Your task to perform on an android device: toggle data saver in the chrome app Image 0: 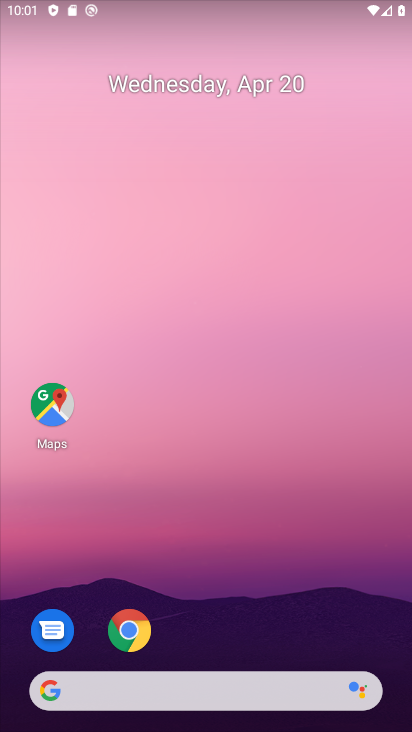
Step 0: drag from (304, 550) to (362, 51)
Your task to perform on an android device: toggle data saver in the chrome app Image 1: 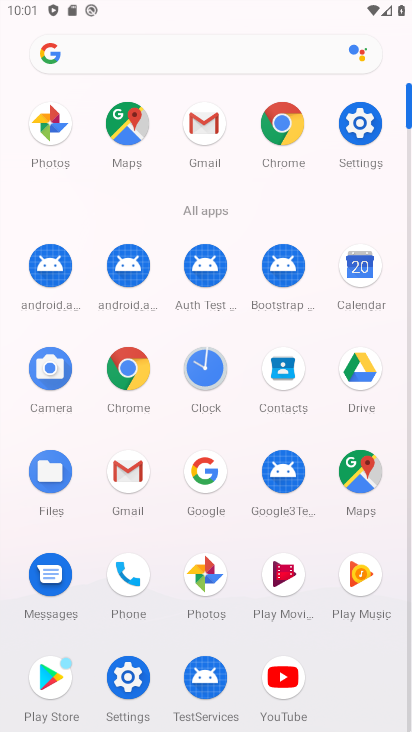
Step 1: click (294, 119)
Your task to perform on an android device: toggle data saver in the chrome app Image 2: 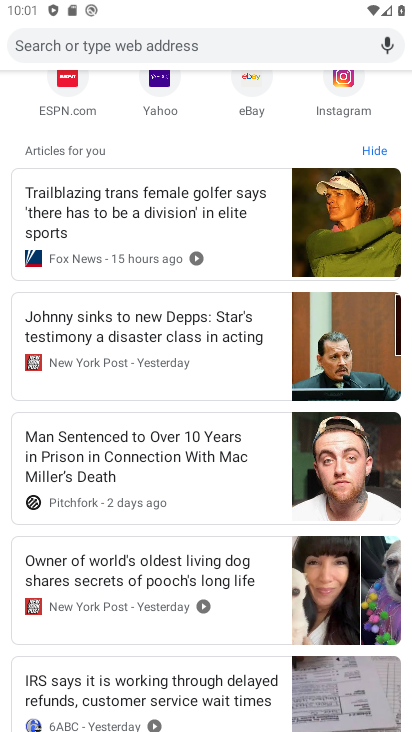
Step 2: drag from (140, 190) to (135, 575)
Your task to perform on an android device: toggle data saver in the chrome app Image 3: 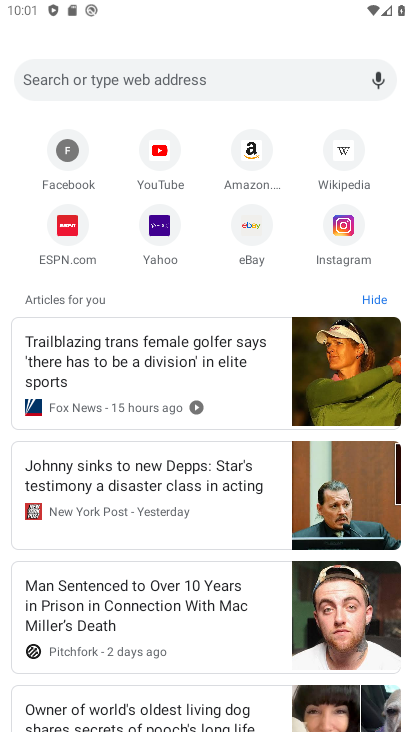
Step 3: drag from (204, 506) to (230, 681)
Your task to perform on an android device: toggle data saver in the chrome app Image 4: 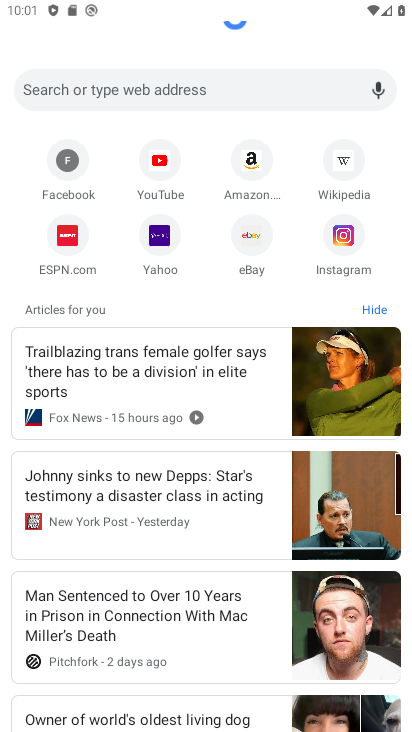
Step 4: drag from (210, 239) to (199, 545)
Your task to perform on an android device: toggle data saver in the chrome app Image 5: 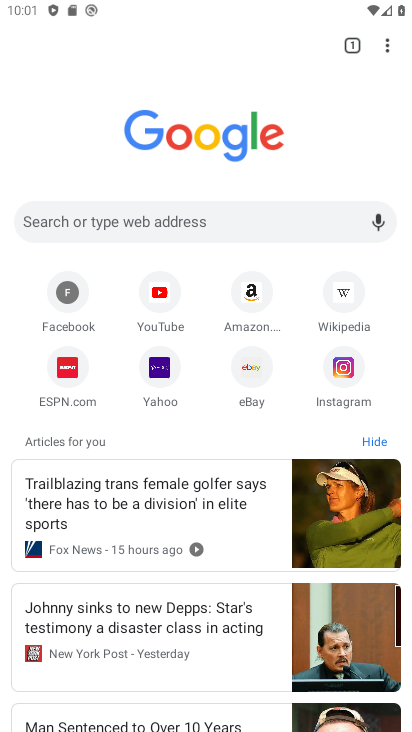
Step 5: click (377, 30)
Your task to perform on an android device: toggle data saver in the chrome app Image 6: 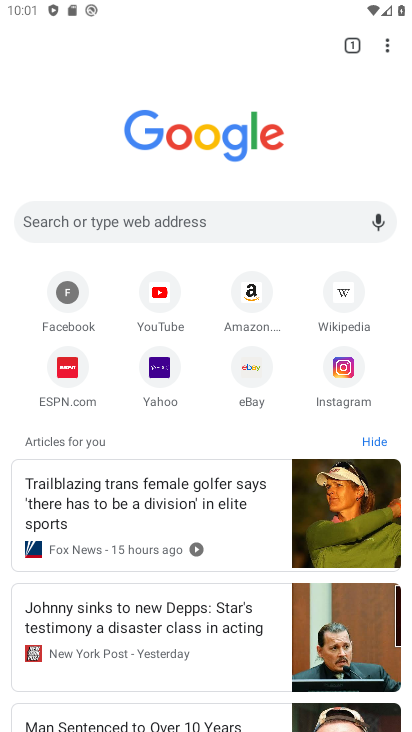
Step 6: click (385, 37)
Your task to perform on an android device: toggle data saver in the chrome app Image 7: 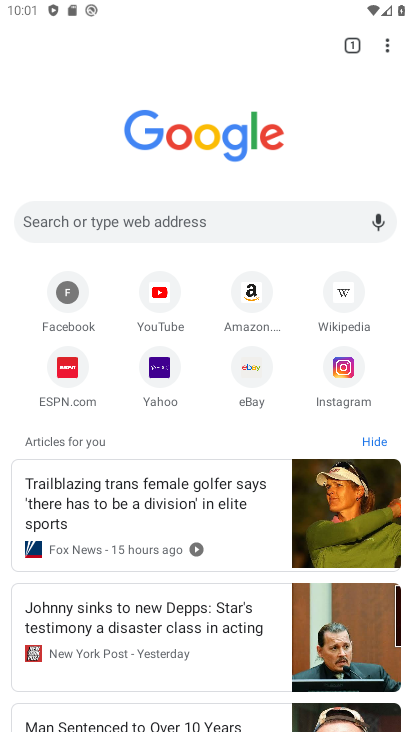
Step 7: drag from (386, 45) to (266, 386)
Your task to perform on an android device: toggle data saver in the chrome app Image 8: 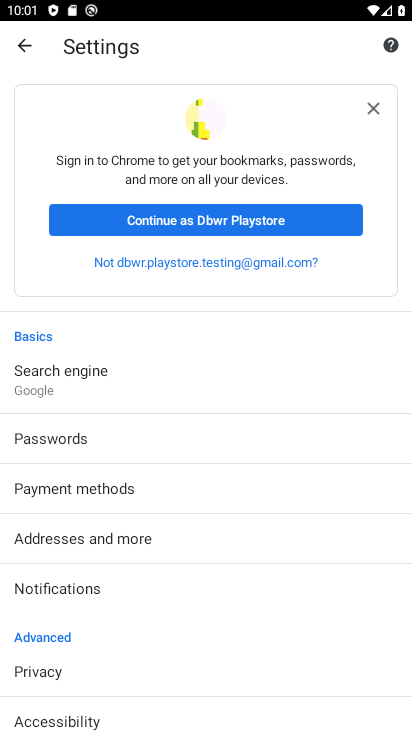
Step 8: drag from (203, 508) to (305, 226)
Your task to perform on an android device: toggle data saver in the chrome app Image 9: 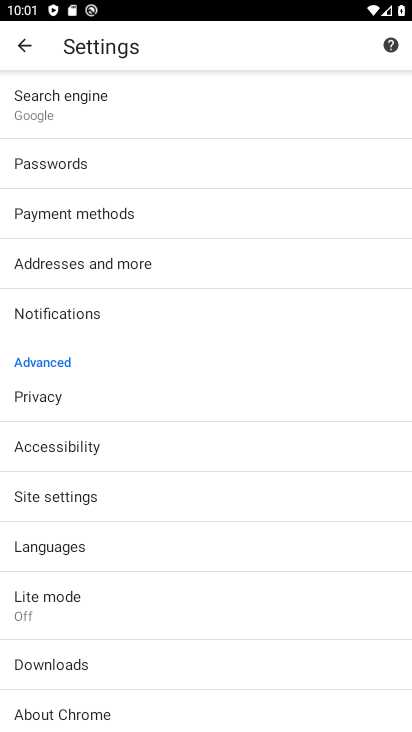
Step 9: drag from (165, 630) to (222, 282)
Your task to perform on an android device: toggle data saver in the chrome app Image 10: 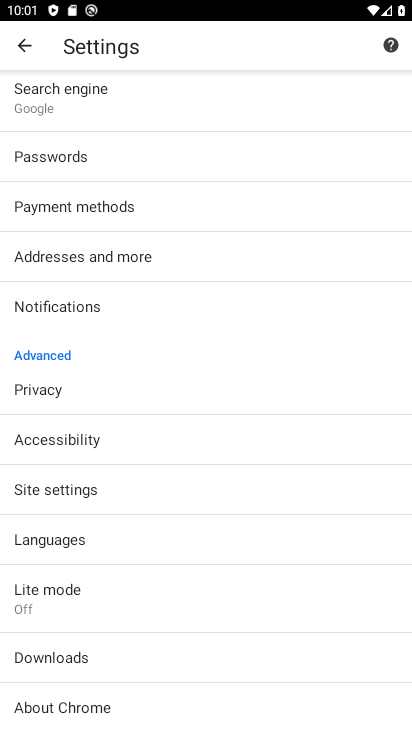
Step 10: drag from (136, 640) to (208, 294)
Your task to perform on an android device: toggle data saver in the chrome app Image 11: 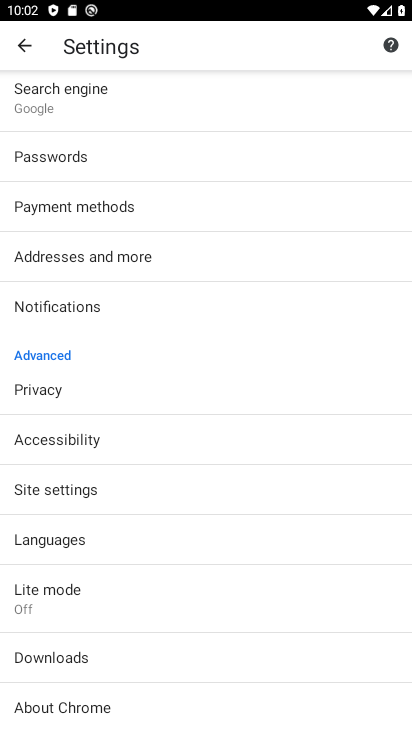
Step 11: drag from (173, 598) to (203, 331)
Your task to perform on an android device: toggle data saver in the chrome app Image 12: 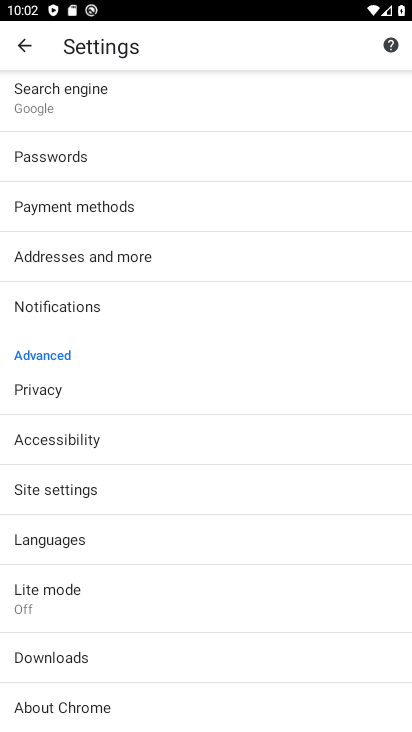
Step 12: click (70, 598)
Your task to perform on an android device: toggle data saver in the chrome app Image 13: 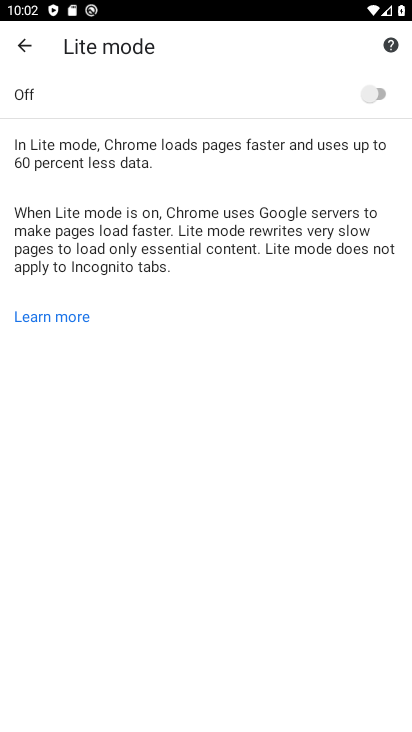
Step 13: click (377, 95)
Your task to perform on an android device: toggle data saver in the chrome app Image 14: 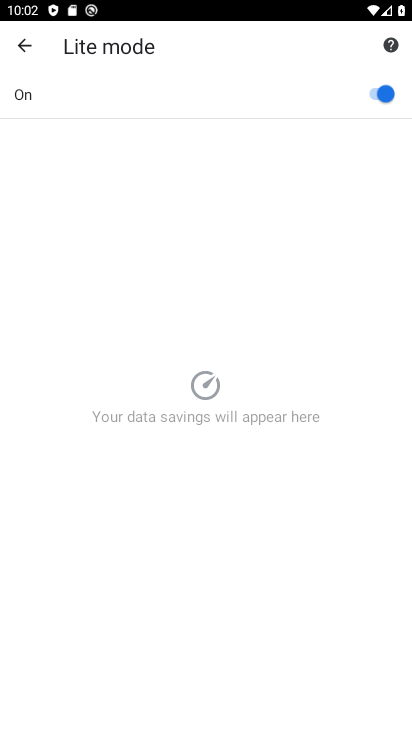
Step 14: task complete